Your task to perform on an android device: Open calendar and show me the third week of next month Image 0: 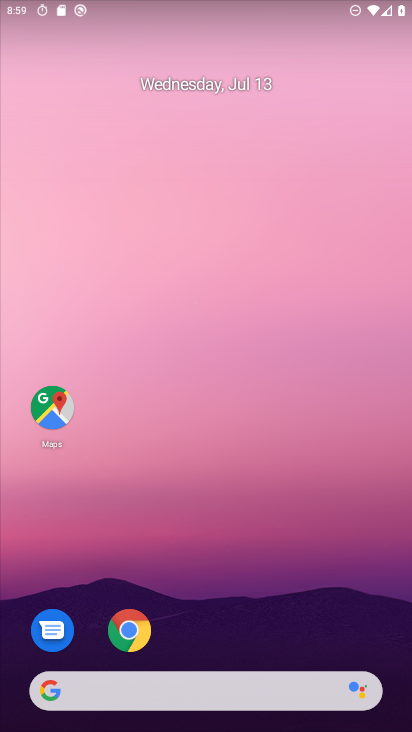
Step 0: drag from (392, 671) to (246, 23)
Your task to perform on an android device: Open calendar and show me the third week of next month Image 1: 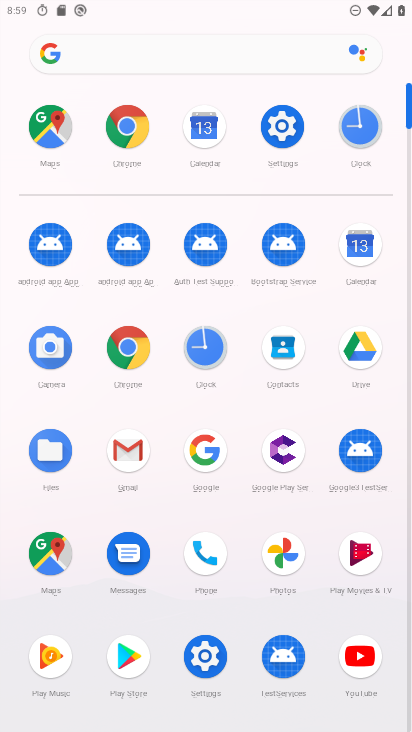
Step 1: click (362, 245)
Your task to perform on an android device: Open calendar and show me the third week of next month Image 2: 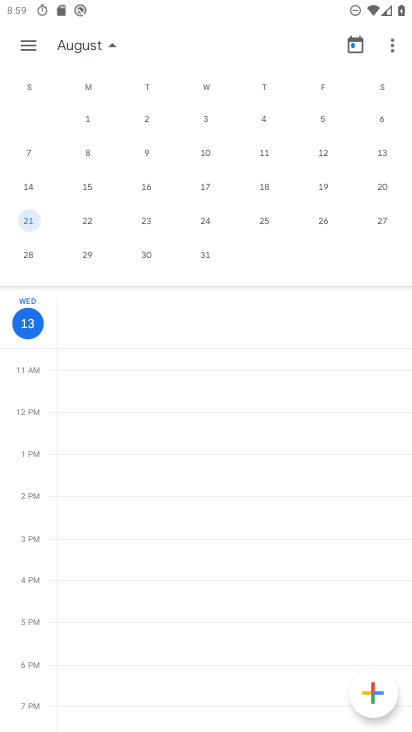
Step 2: drag from (340, 160) to (0, 163)
Your task to perform on an android device: Open calendar and show me the third week of next month Image 3: 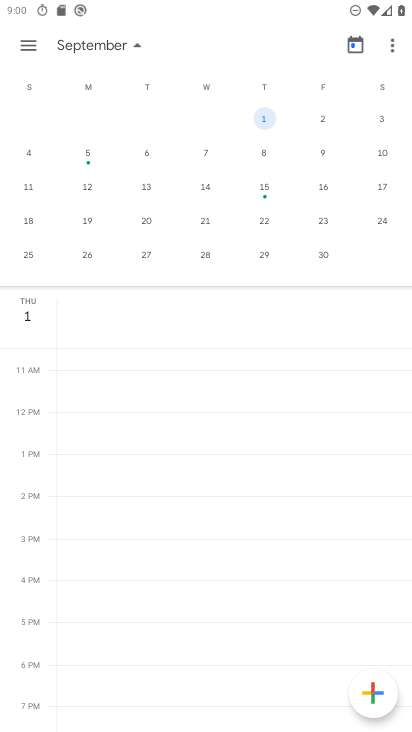
Step 3: click (27, 252)
Your task to perform on an android device: Open calendar and show me the third week of next month Image 4: 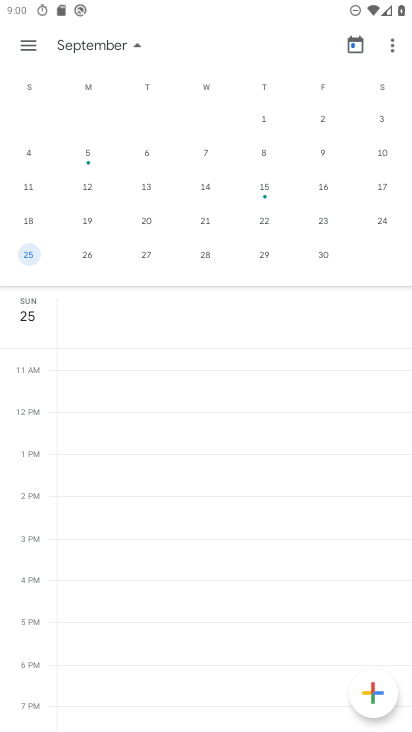
Step 4: click (29, 217)
Your task to perform on an android device: Open calendar and show me the third week of next month Image 5: 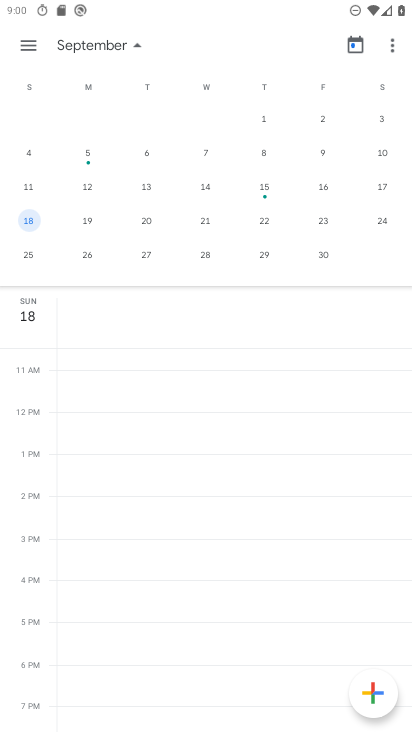
Step 5: task complete